Your task to perform on an android device: Go to battery settings Image 0: 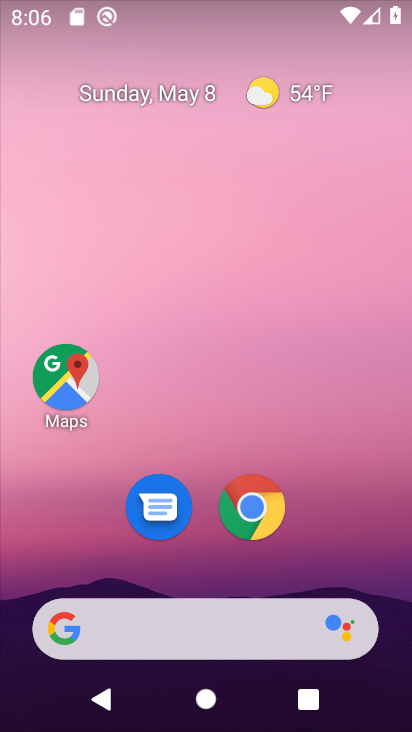
Step 0: drag from (186, 565) to (207, 152)
Your task to perform on an android device: Go to battery settings Image 1: 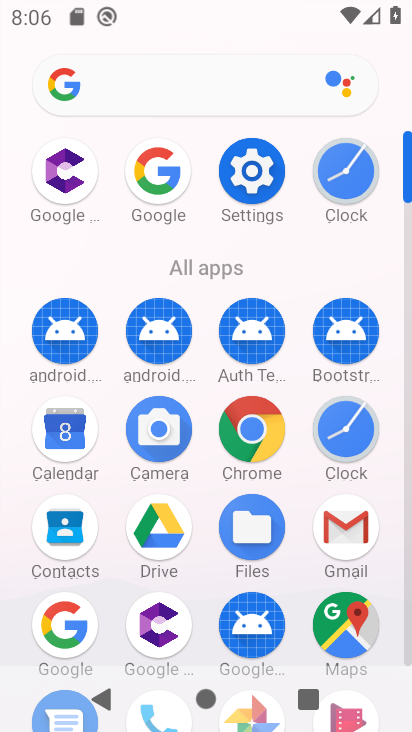
Step 1: click (279, 173)
Your task to perform on an android device: Go to battery settings Image 2: 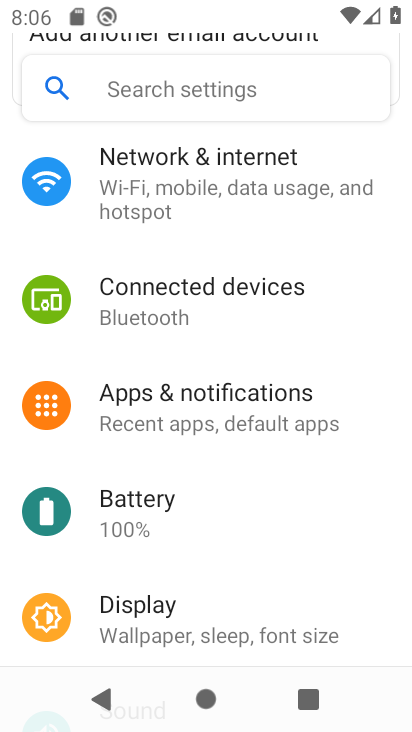
Step 2: click (154, 505)
Your task to perform on an android device: Go to battery settings Image 3: 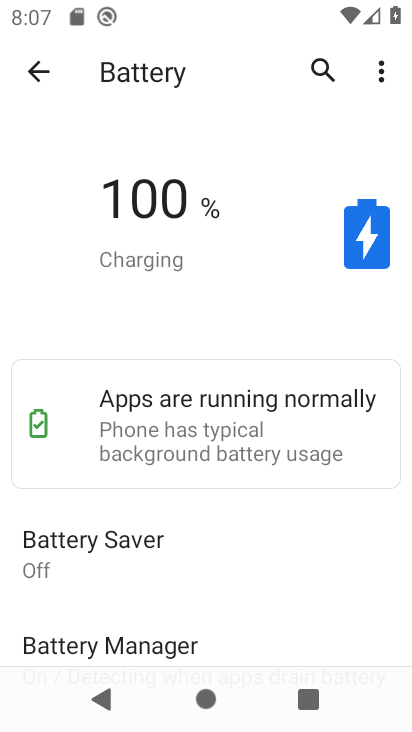
Step 3: task complete